Your task to perform on an android device: set default search engine in the chrome app Image 0: 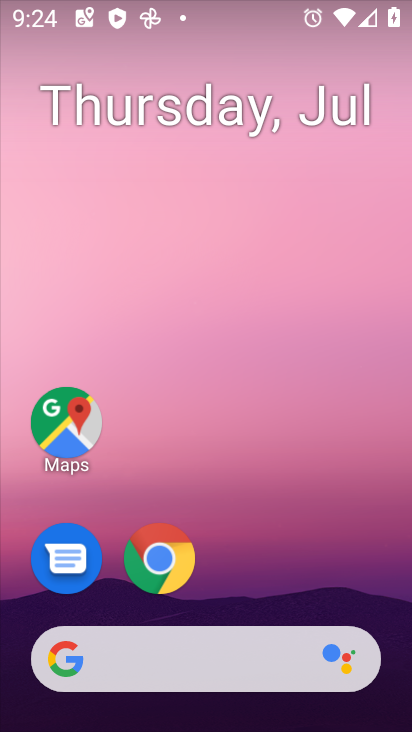
Step 0: drag from (387, 584) to (349, 173)
Your task to perform on an android device: set default search engine in the chrome app Image 1: 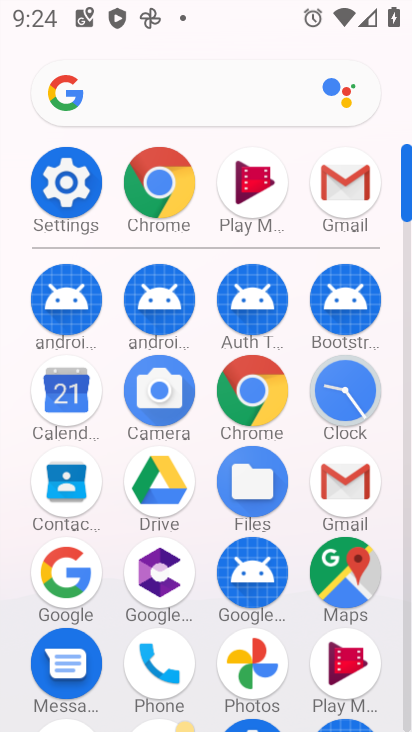
Step 1: click (276, 407)
Your task to perform on an android device: set default search engine in the chrome app Image 2: 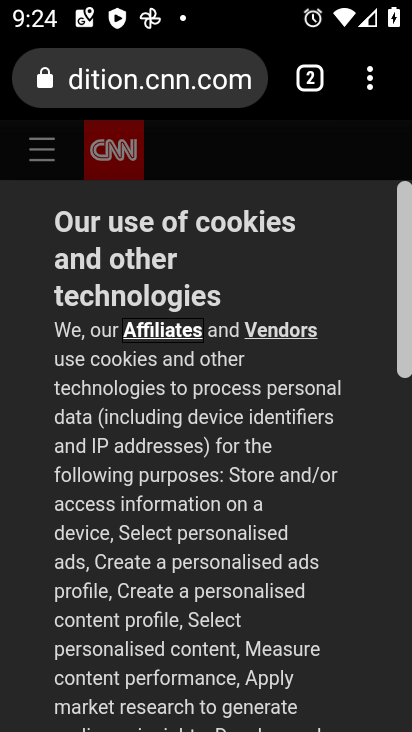
Step 2: click (372, 78)
Your task to perform on an android device: set default search engine in the chrome app Image 3: 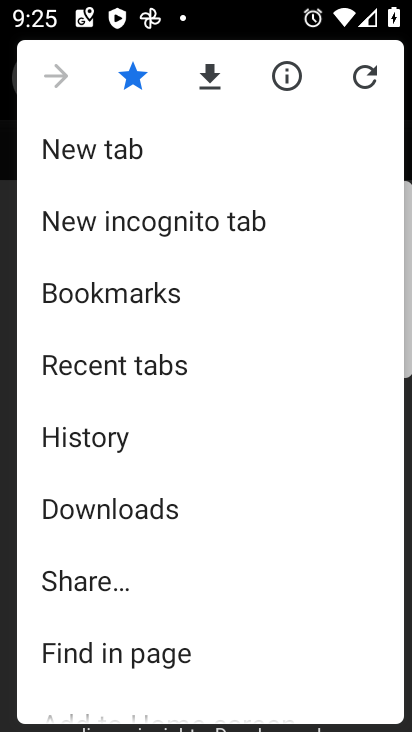
Step 3: drag from (356, 377) to (353, 342)
Your task to perform on an android device: set default search engine in the chrome app Image 4: 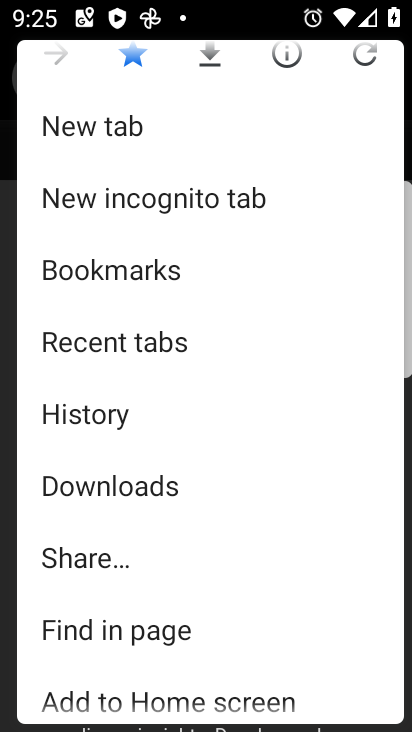
Step 4: drag from (347, 455) to (347, 407)
Your task to perform on an android device: set default search engine in the chrome app Image 5: 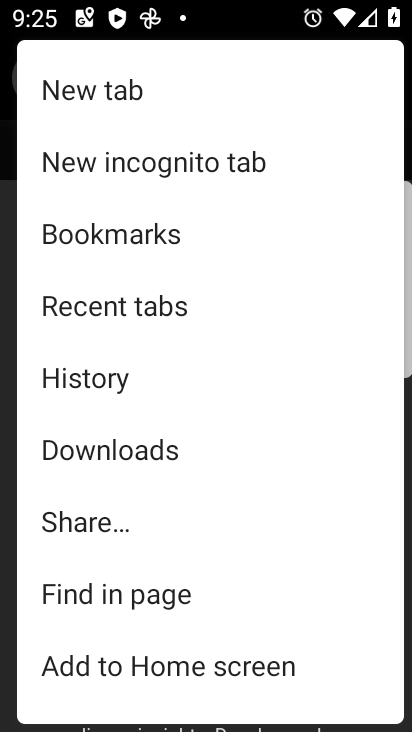
Step 5: drag from (342, 461) to (339, 420)
Your task to perform on an android device: set default search engine in the chrome app Image 6: 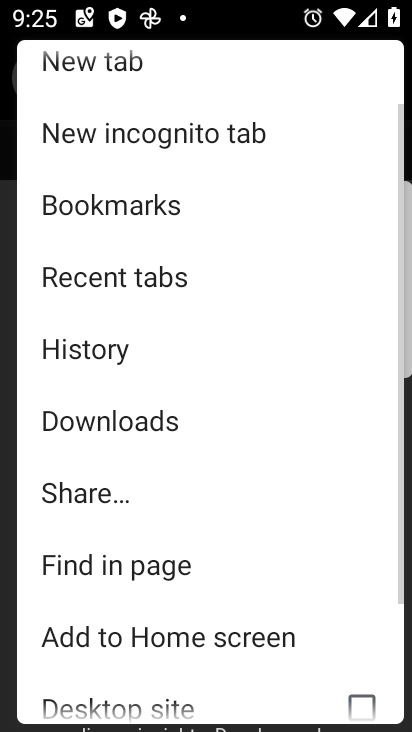
Step 6: drag from (339, 461) to (339, 405)
Your task to perform on an android device: set default search engine in the chrome app Image 7: 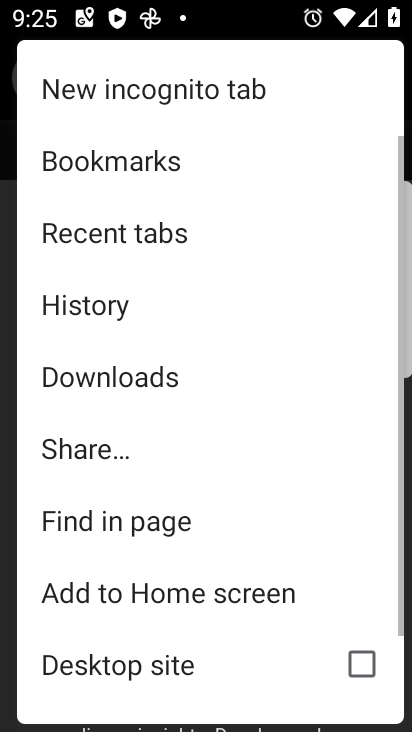
Step 7: drag from (339, 470) to (340, 418)
Your task to perform on an android device: set default search engine in the chrome app Image 8: 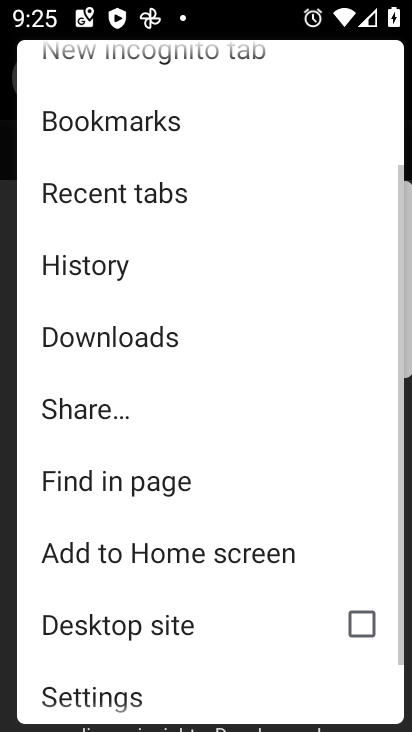
Step 8: drag from (337, 480) to (335, 405)
Your task to perform on an android device: set default search engine in the chrome app Image 9: 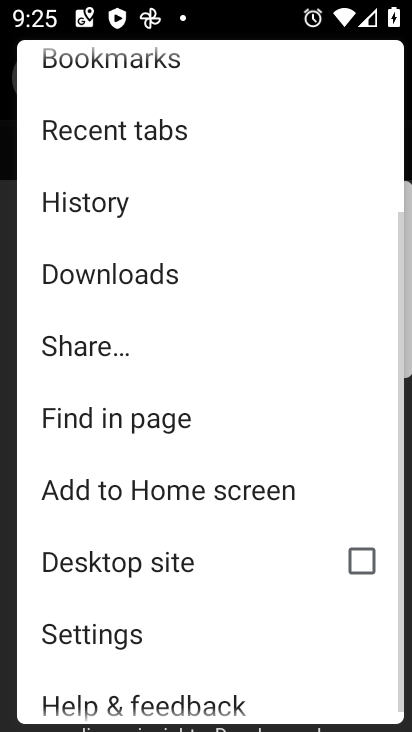
Step 9: drag from (334, 456) to (333, 388)
Your task to perform on an android device: set default search engine in the chrome app Image 10: 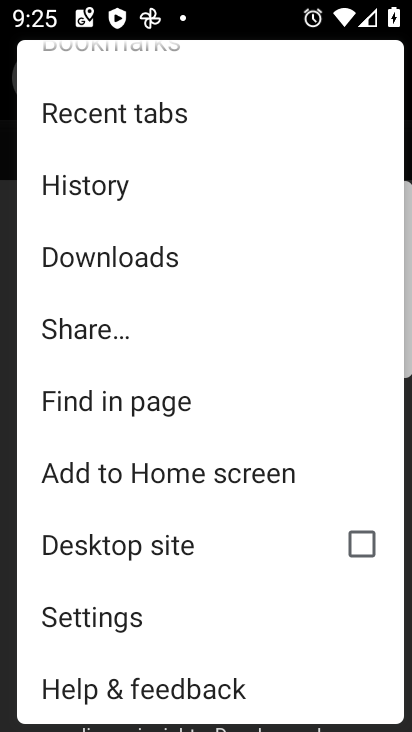
Step 10: click (225, 623)
Your task to perform on an android device: set default search engine in the chrome app Image 11: 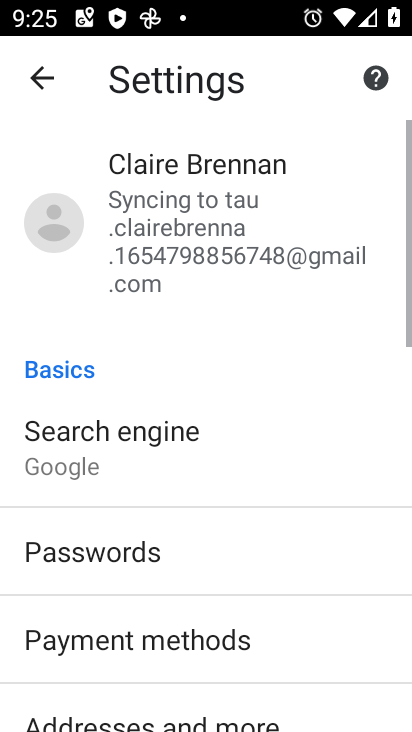
Step 11: drag from (315, 511) to (317, 460)
Your task to perform on an android device: set default search engine in the chrome app Image 12: 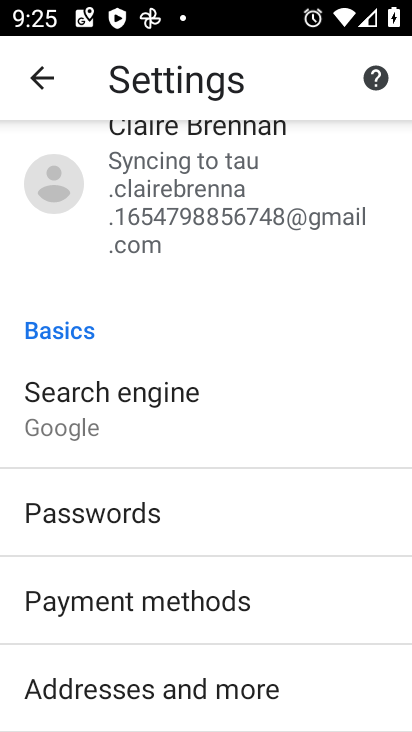
Step 12: drag from (326, 539) to (327, 463)
Your task to perform on an android device: set default search engine in the chrome app Image 13: 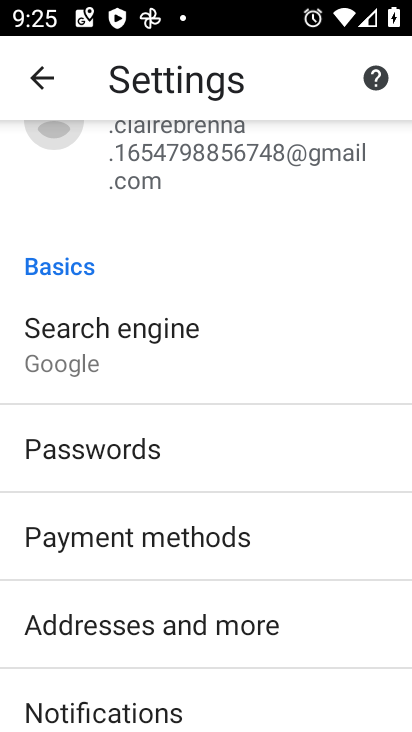
Step 13: drag from (327, 564) to (303, 438)
Your task to perform on an android device: set default search engine in the chrome app Image 14: 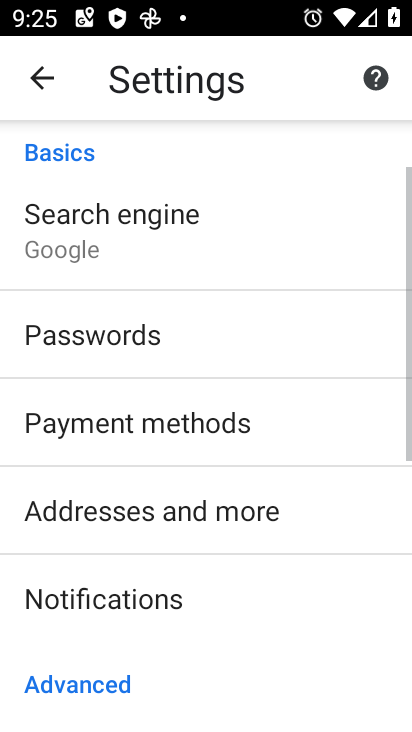
Step 14: drag from (296, 528) to (290, 452)
Your task to perform on an android device: set default search engine in the chrome app Image 15: 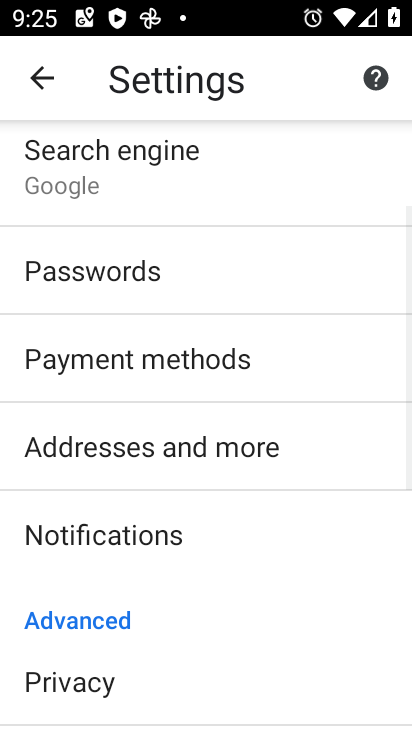
Step 15: drag from (288, 566) to (283, 483)
Your task to perform on an android device: set default search engine in the chrome app Image 16: 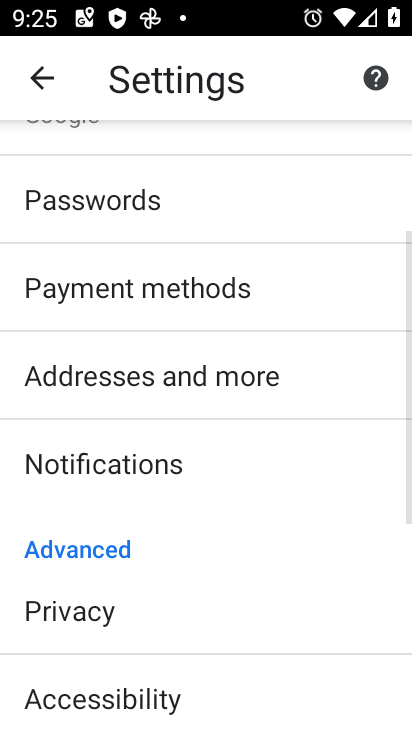
Step 16: drag from (279, 557) to (269, 476)
Your task to perform on an android device: set default search engine in the chrome app Image 17: 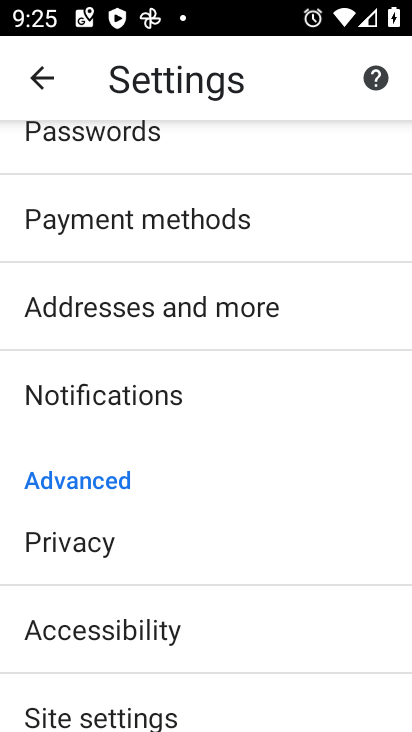
Step 17: drag from (286, 584) to (290, 467)
Your task to perform on an android device: set default search engine in the chrome app Image 18: 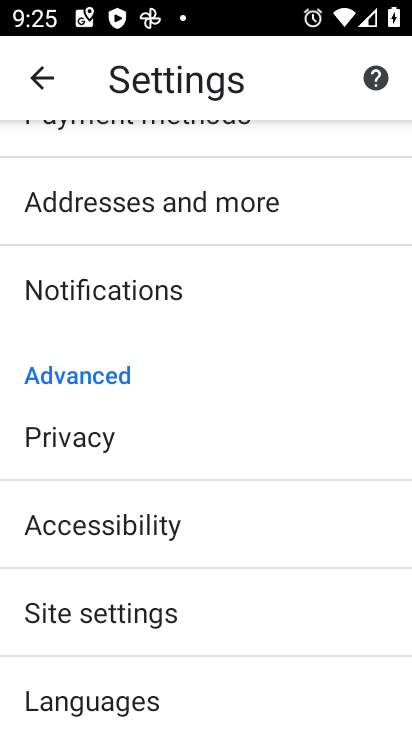
Step 18: drag from (290, 328) to (292, 457)
Your task to perform on an android device: set default search engine in the chrome app Image 19: 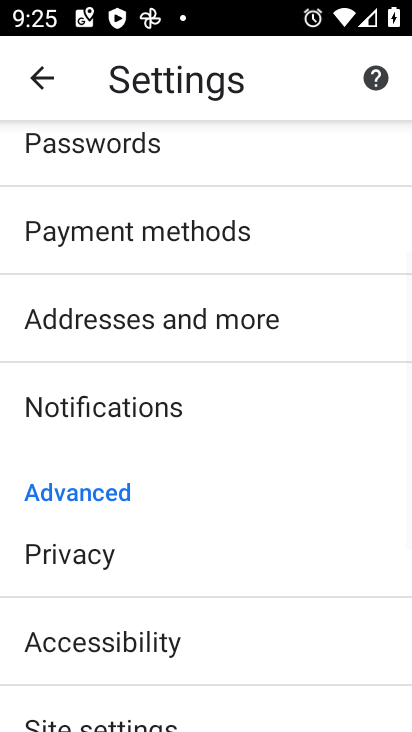
Step 19: drag from (293, 352) to (293, 506)
Your task to perform on an android device: set default search engine in the chrome app Image 20: 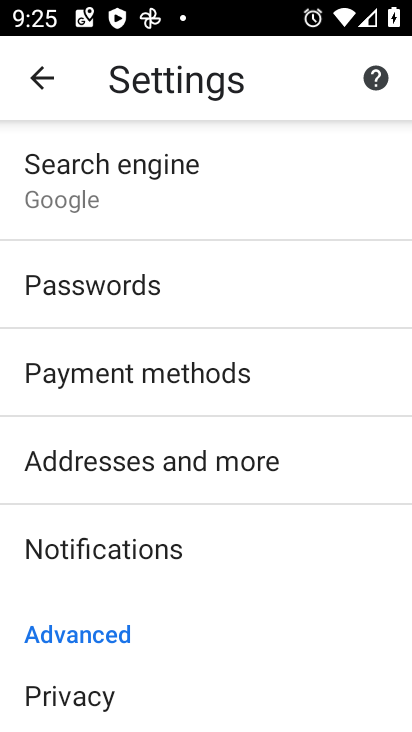
Step 20: drag from (291, 386) to (297, 528)
Your task to perform on an android device: set default search engine in the chrome app Image 21: 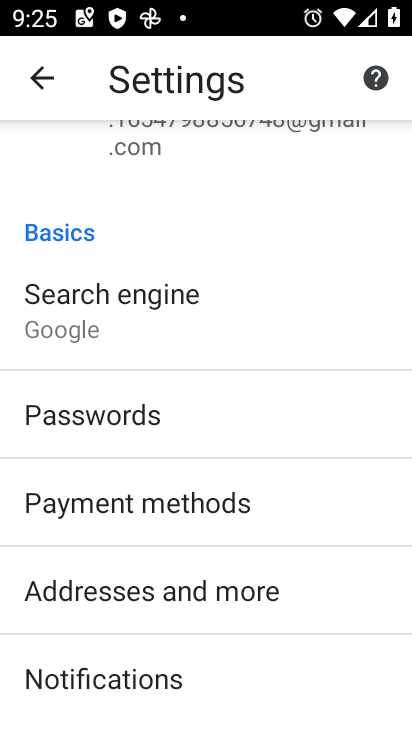
Step 21: click (223, 337)
Your task to perform on an android device: set default search engine in the chrome app Image 22: 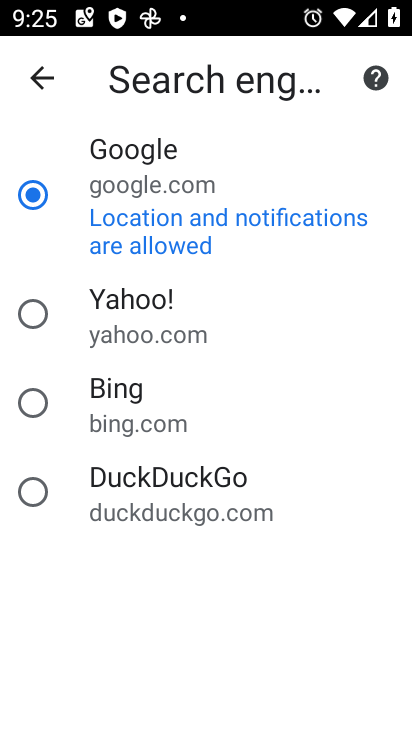
Step 22: click (180, 425)
Your task to perform on an android device: set default search engine in the chrome app Image 23: 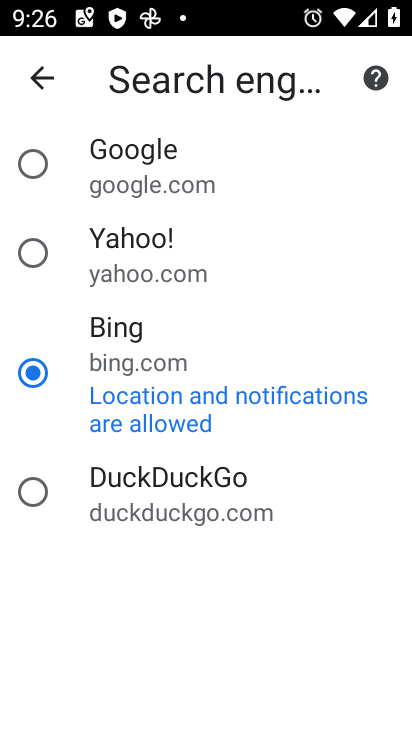
Step 23: task complete